Your task to perform on an android device: set the timer Image 0: 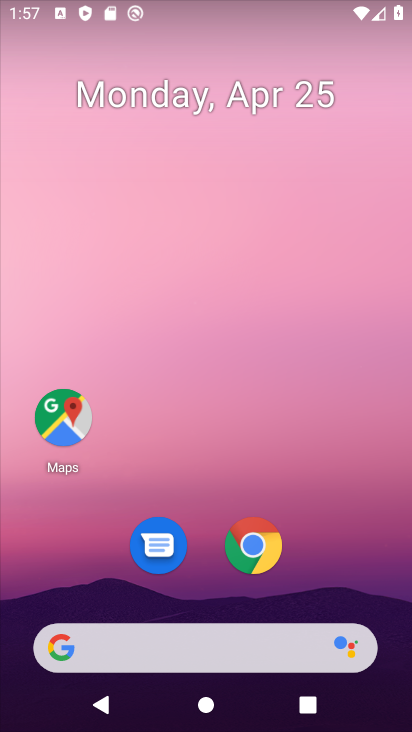
Step 0: drag from (100, 16) to (58, 0)
Your task to perform on an android device: set the timer Image 1: 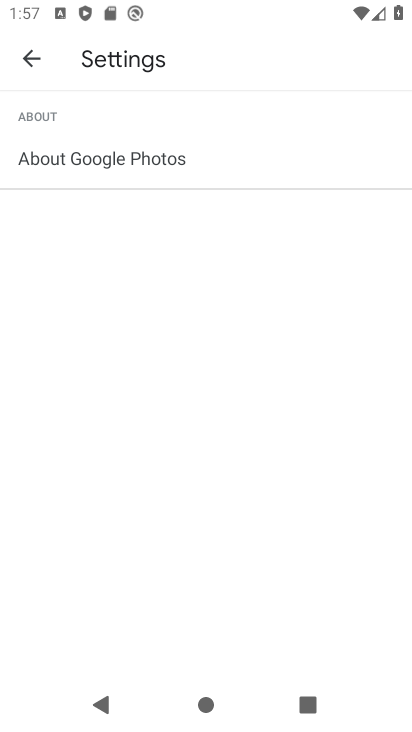
Step 1: press home button
Your task to perform on an android device: set the timer Image 2: 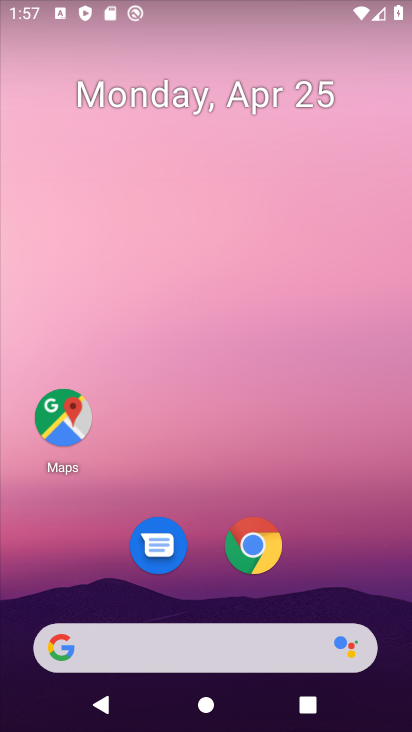
Step 2: drag from (162, 644) to (0, 385)
Your task to perform on an android device: set the timer Image 3: 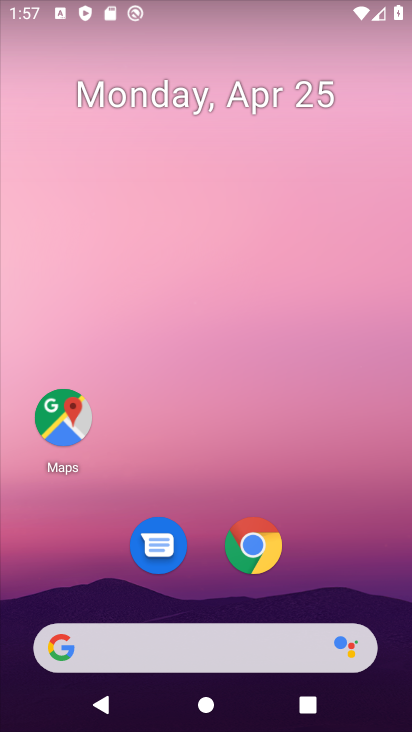
Step 3: drag from (173, 643) to (88, 15)
Your task to perform on an android device: set the timer Image 4: 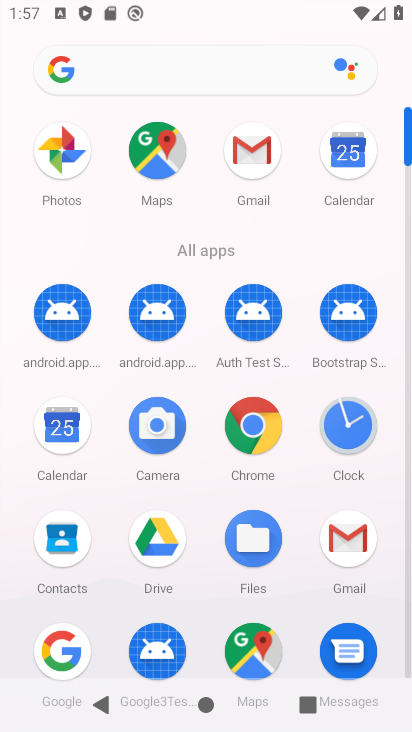
Step 4: click (341, 443)
Your task to perform on an android device: set the timer Image 5: 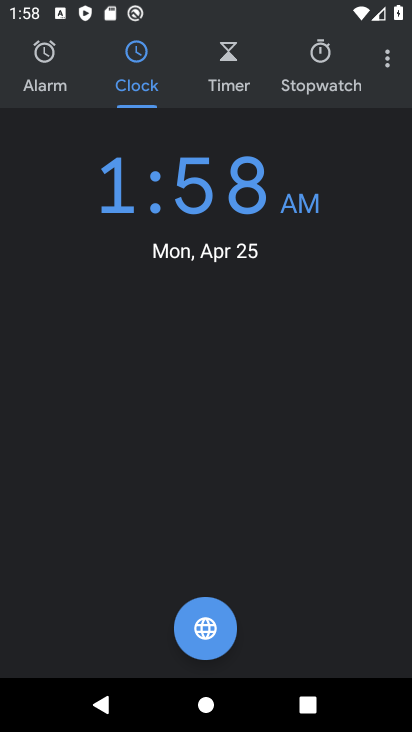
Step 5: click (246, 87)
Your task to perform on an android device: set the timer Image 6: 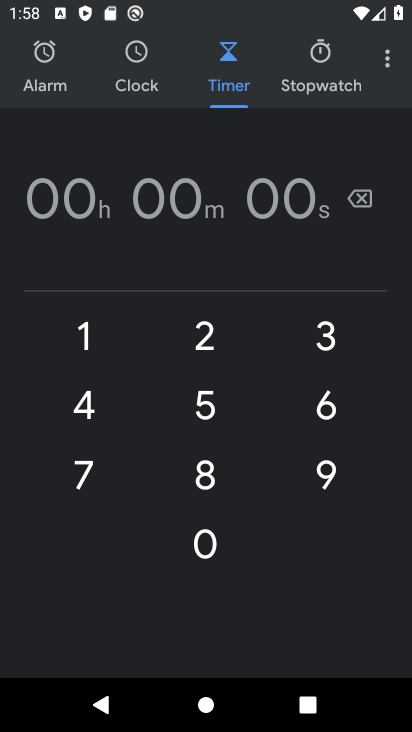
Step 6: click (214, 343)
Your task to perform on an android device: set the timer Image 7: 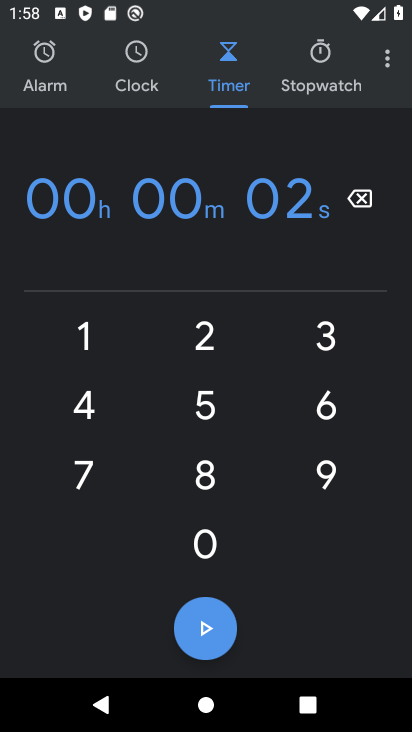
Step 7: click (335, 411)
Your task to perform on an android device: set the timer Image 8: 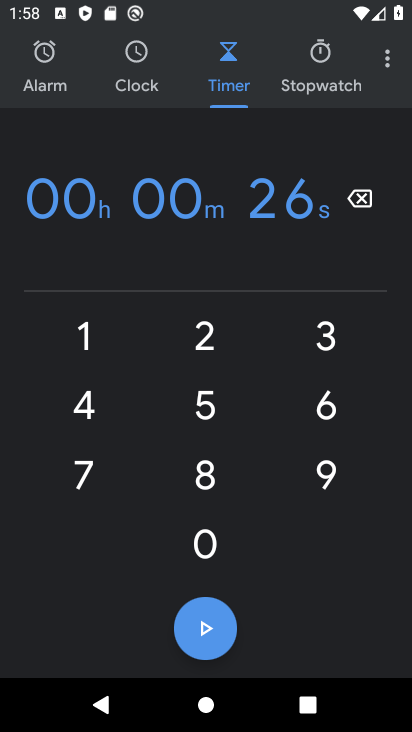
Step 8: click (194, 485)
Your task to perform on an android device: set the timer Image 9: 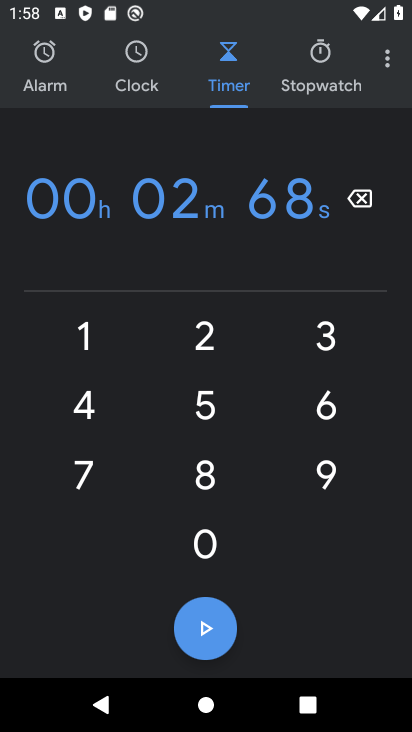
Step 9: click (90, 413)
Your task to perform on an android device: set the timer Image 10: 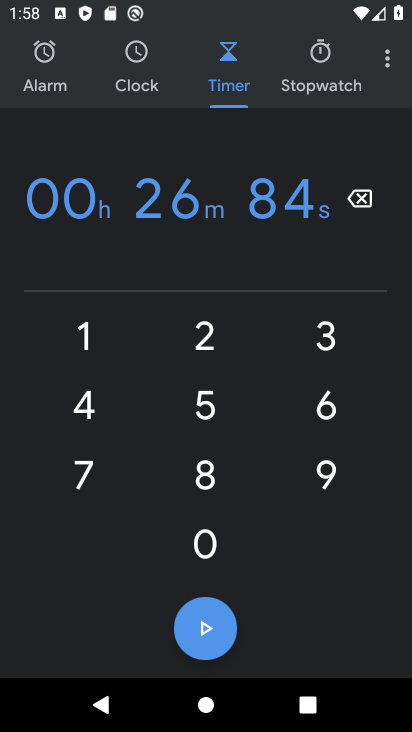
Step 10: click (197, 639)
Your task to perform on an android device: set the timer Image 11: 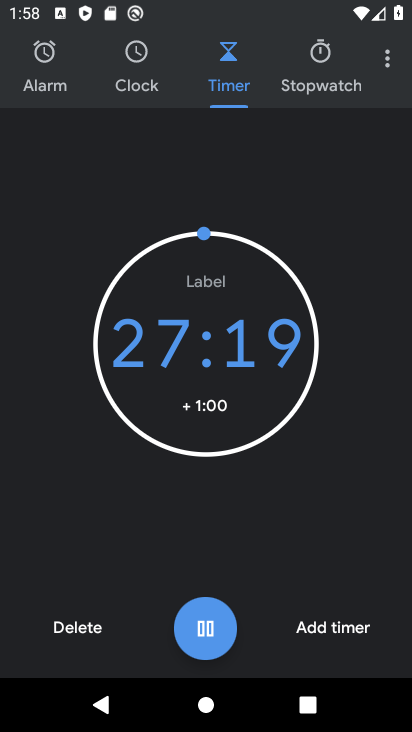
Step 11: click (225, 649)
Your task to perform on an android device: set the timer Image 12: 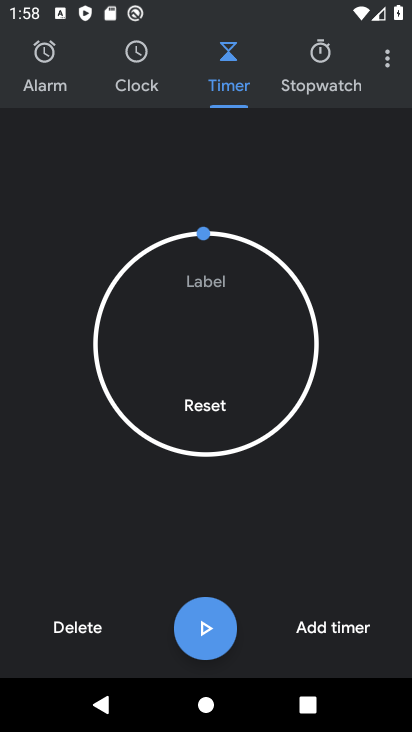
Step 12: task complete